Your task to perform on an android device: change alarm snooze length Image 0: 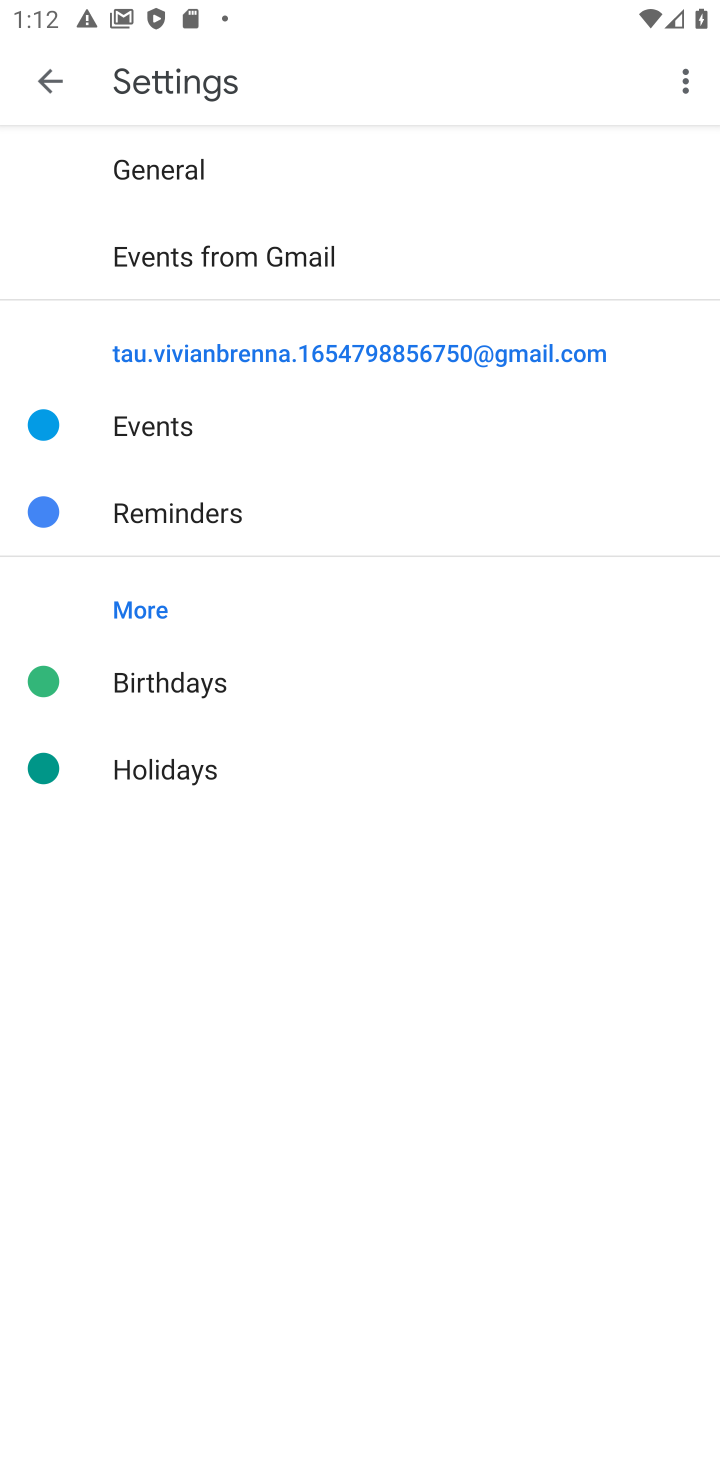
Step 0: press home button
Your task to perform on an android device: change alarm snooze length Image 1: 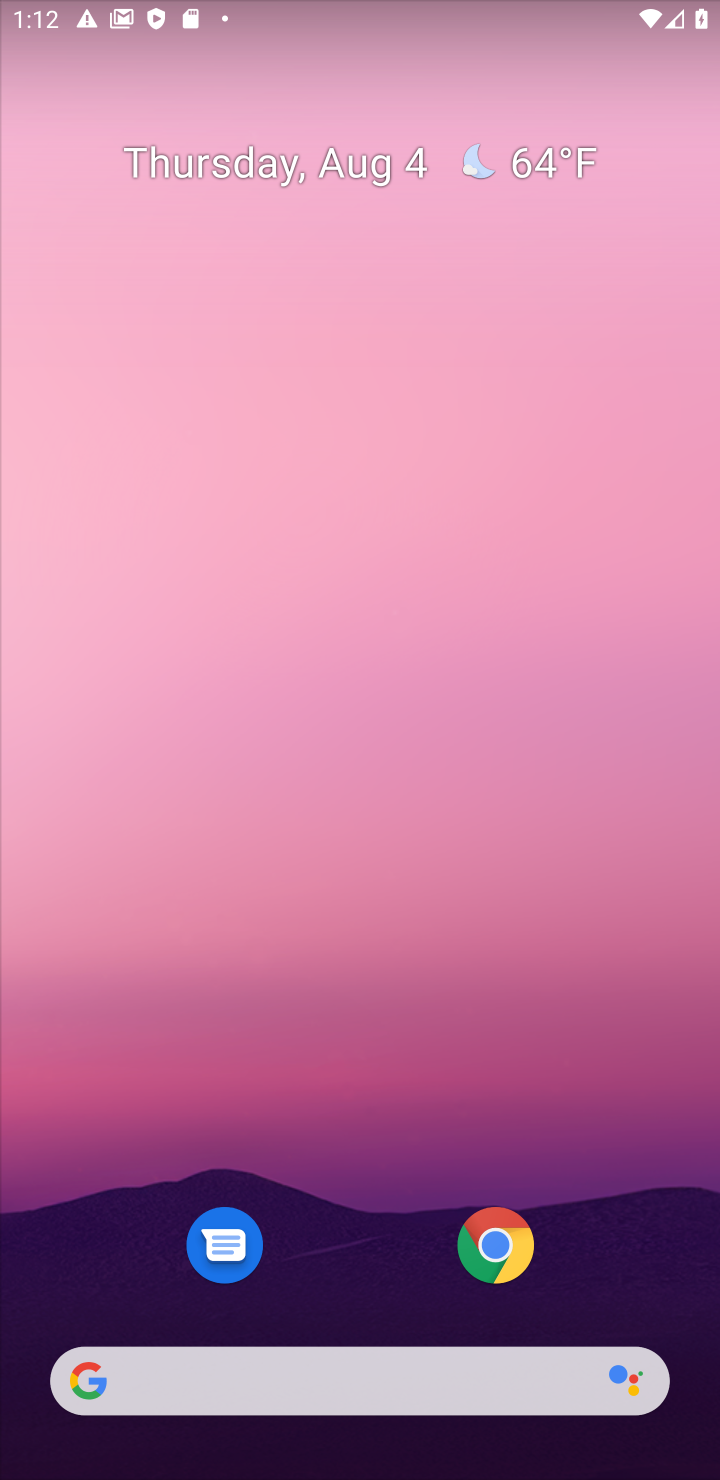
Step 1: drag from (376, 1282) to (355, 205)
Your task to perform on an android device: change alarm snooze length Image 2: 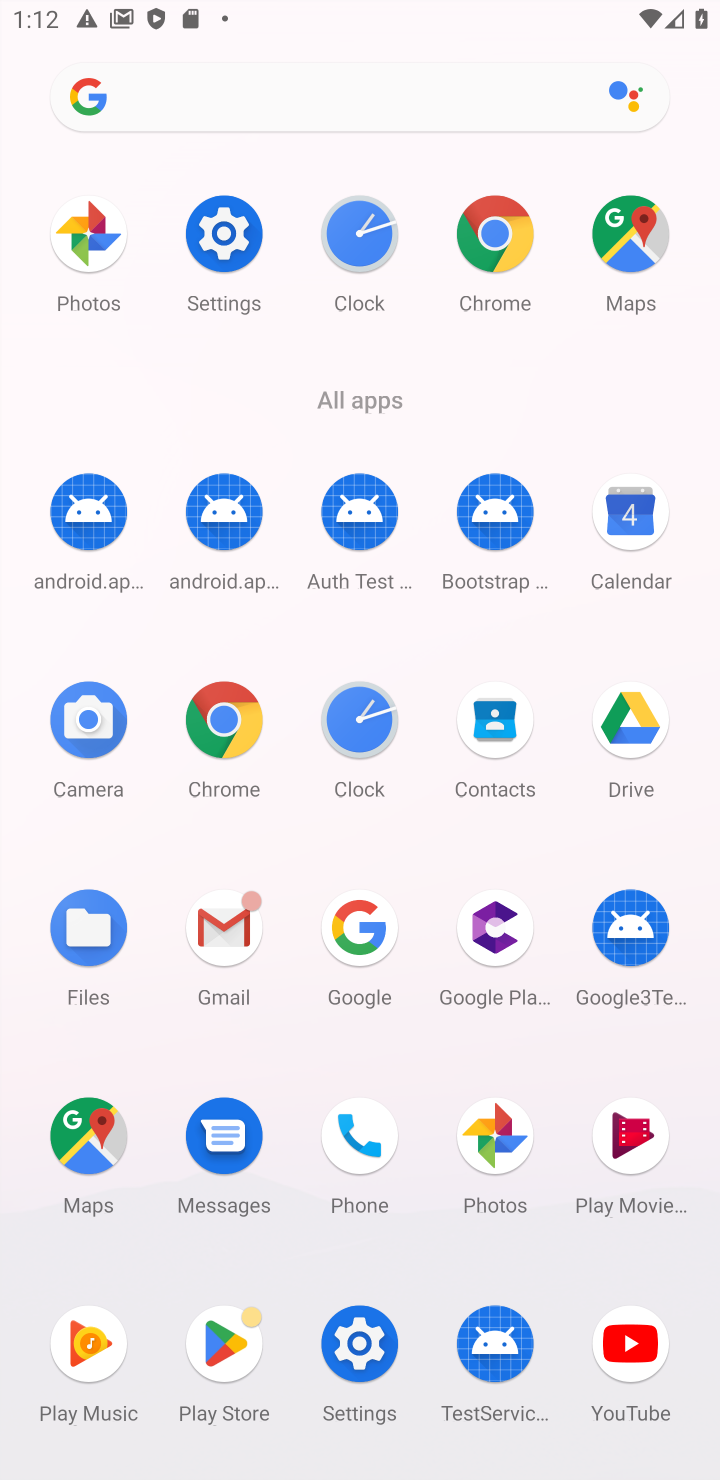
Step 2: click (360, 719)
Your task to perform on an android device: change alarm snooze length Image 3: 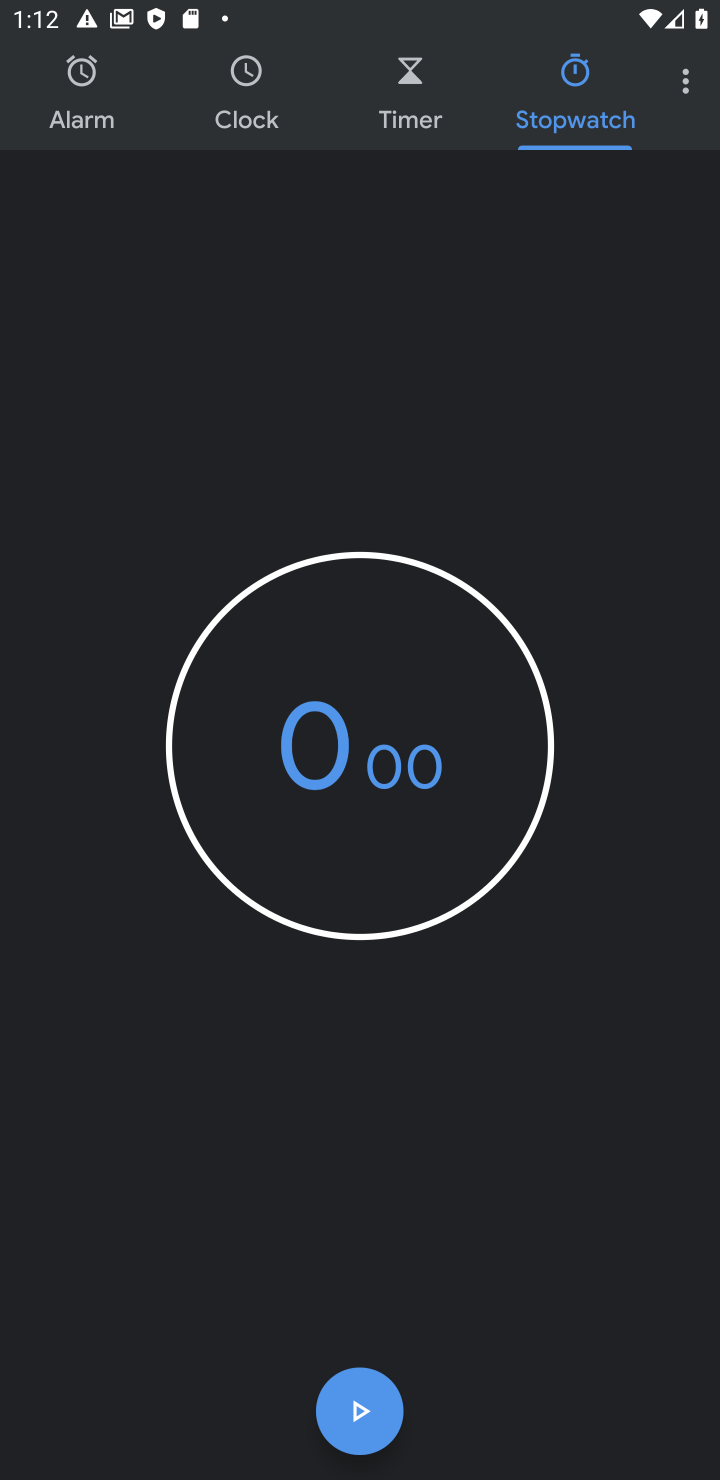
Step 3: click (688, 66)
Your task to perform on an android device: change alarm snooze length Image 4: 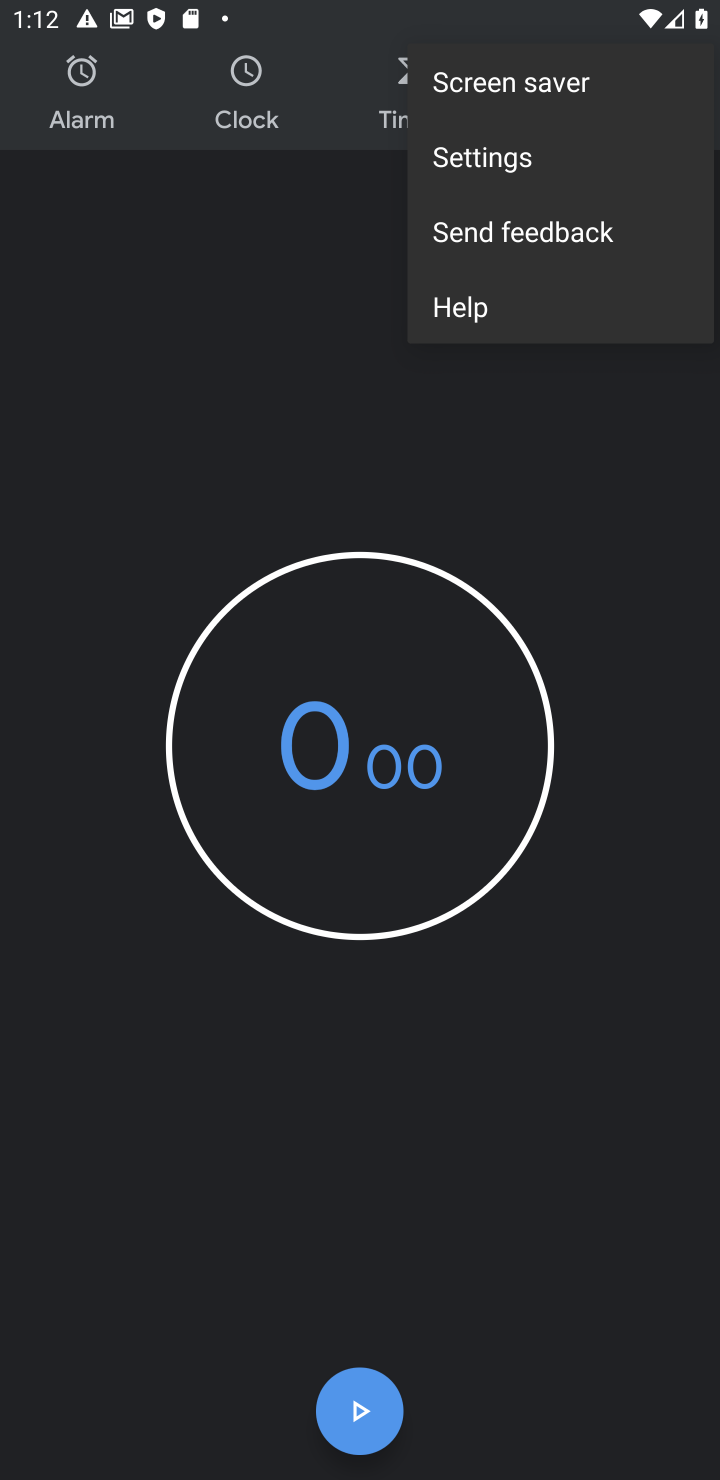
Step 4: click (451, 171)
Your task to perform on an android device: change alarm snooze length Image 5: 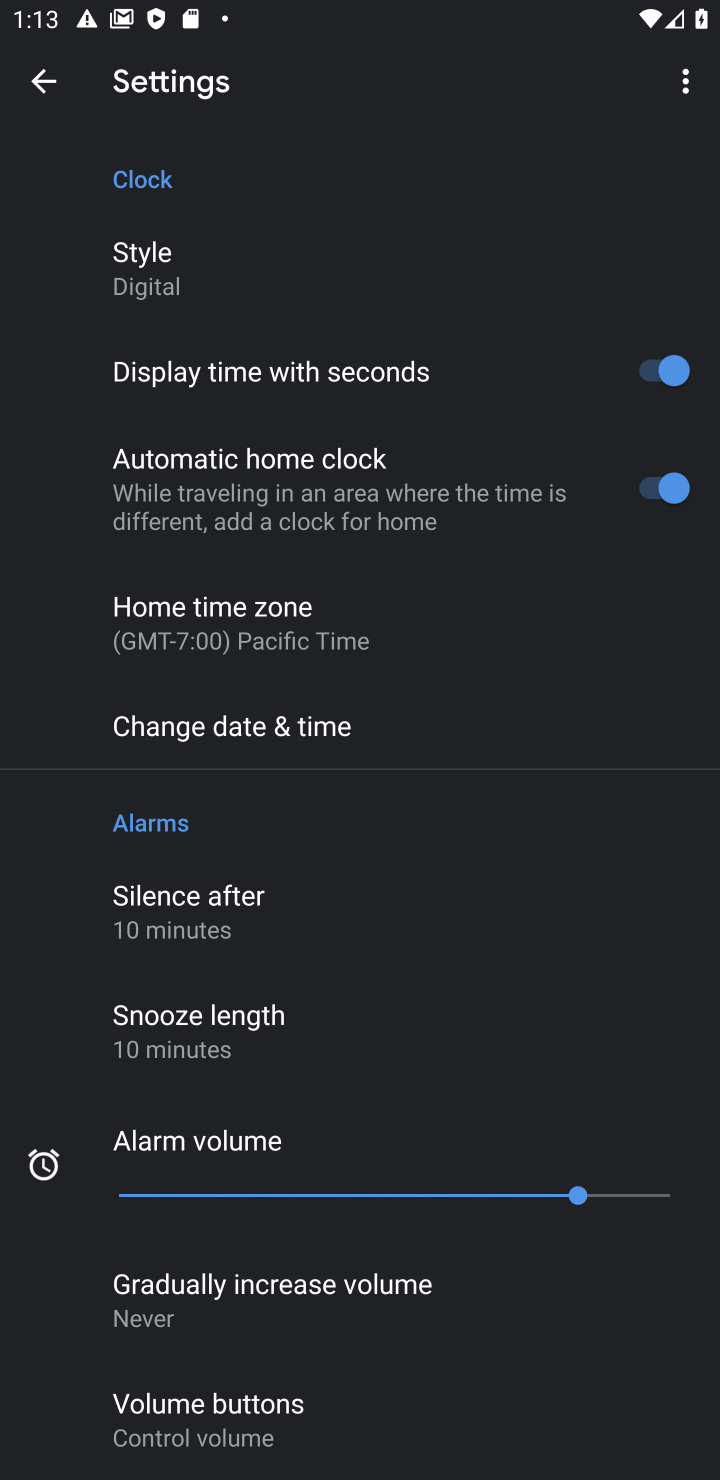
Step 5: click (212, 1058)
Your task to perform on an android device: change alarm snooze length Image 6: 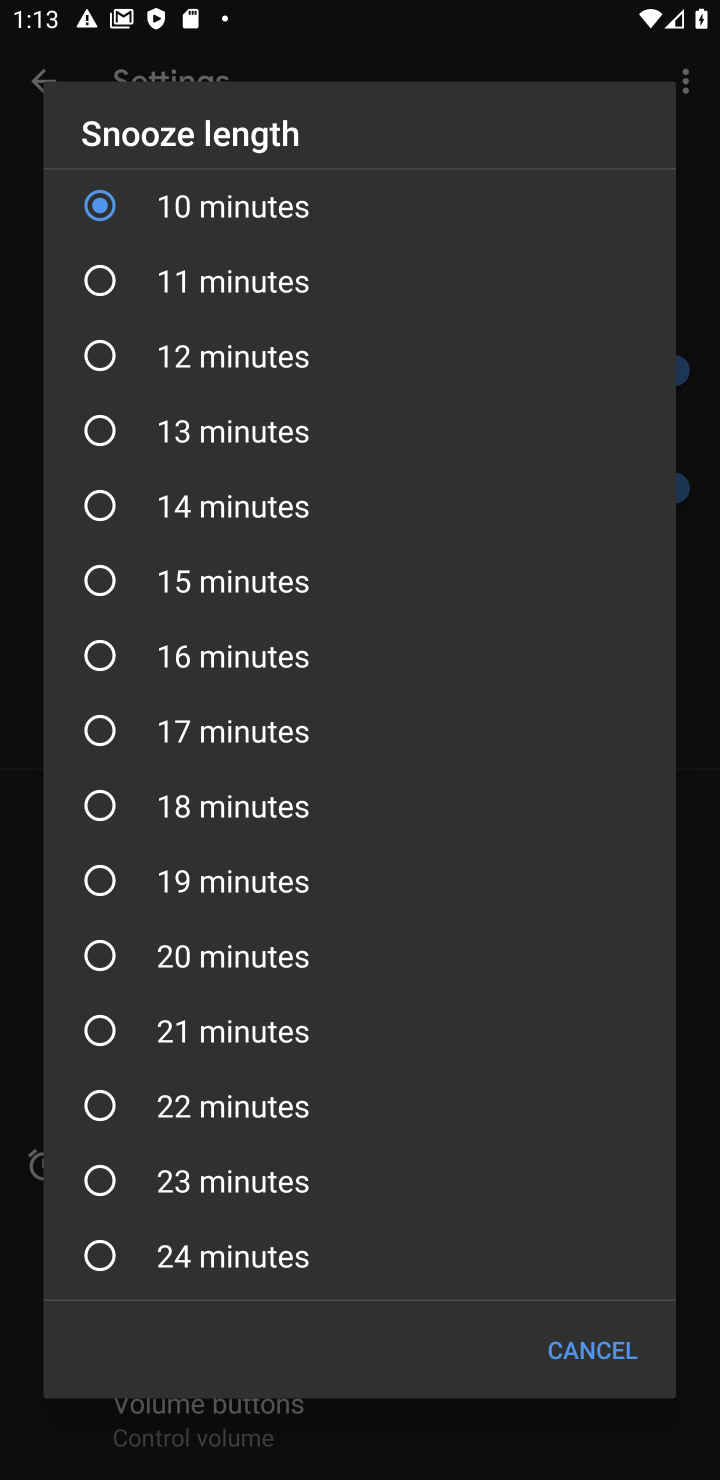
Step 6: click (186, 949)
Your task to perform on an android device: change alarm snooze length Image 7: 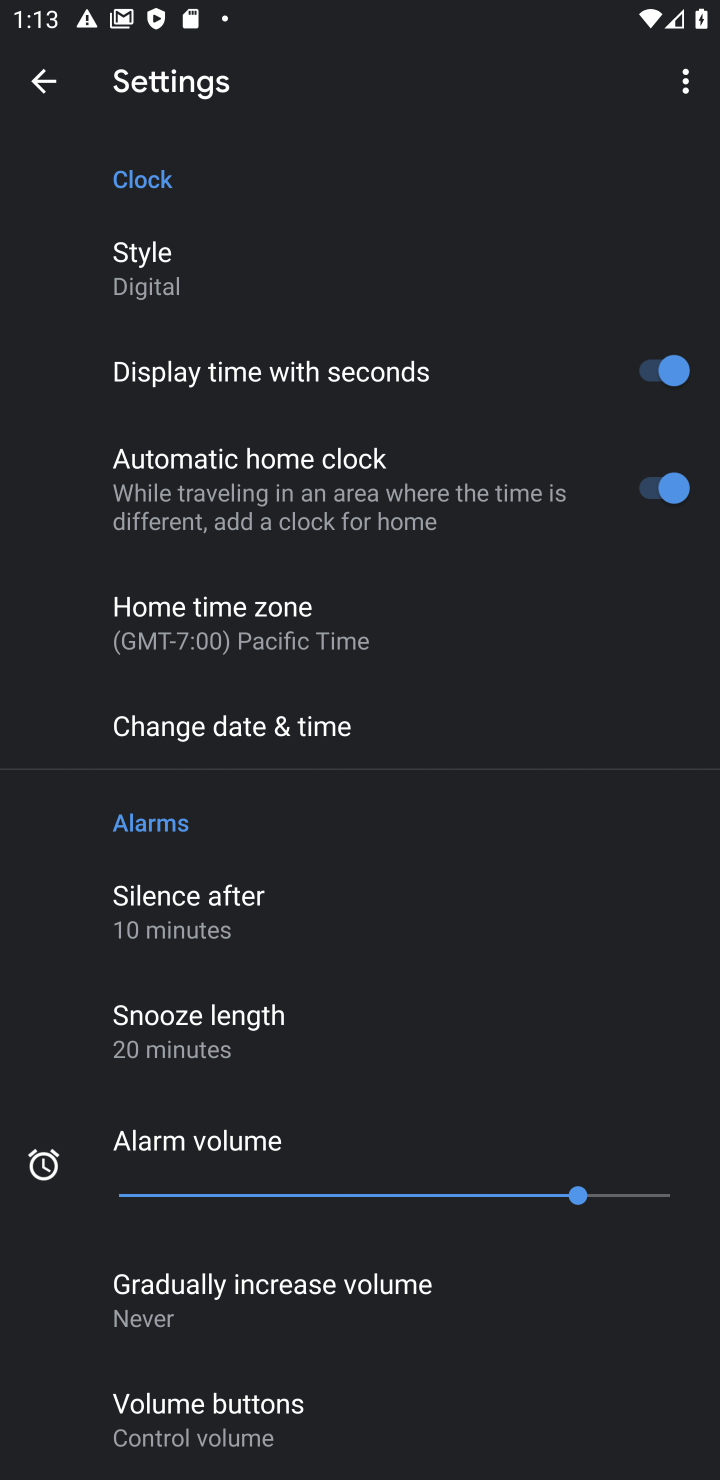
Step 7: task complete